Your task to perform on an android device: toggle javascript in the chrome app Image 0: 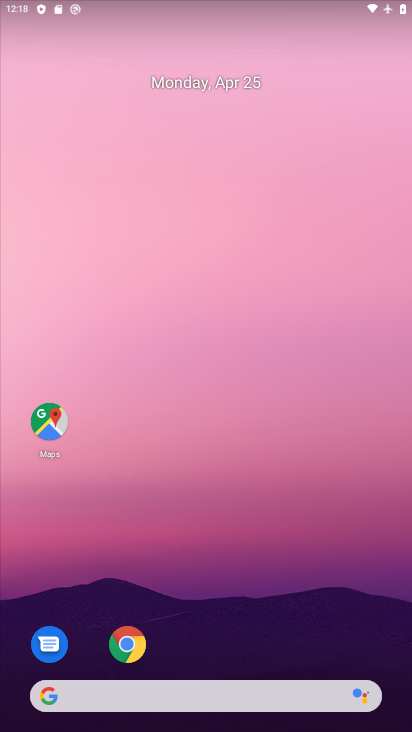
Step 0: click (123, 628)
Your task to perform on an android device: toggle javascript in the chrome app Image 1: 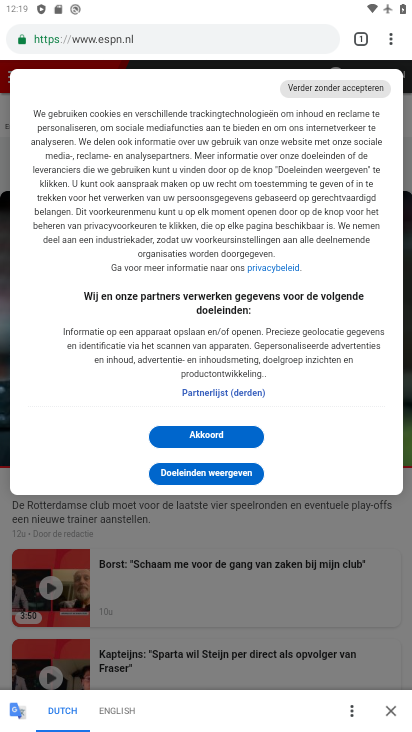
Step 1: click (392, 32)
Your task to perform on an android device: toggle javascript in the chrome app Image 2: 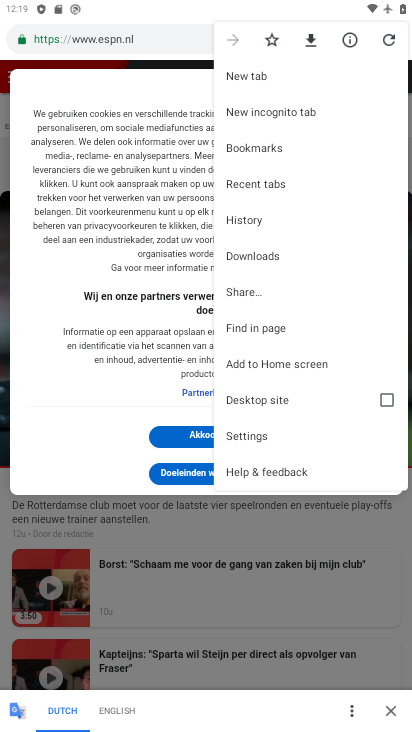
Step 2: click (266, 427)
Your task to perform on an android device: toggle javascript in the chrome app Image 3: 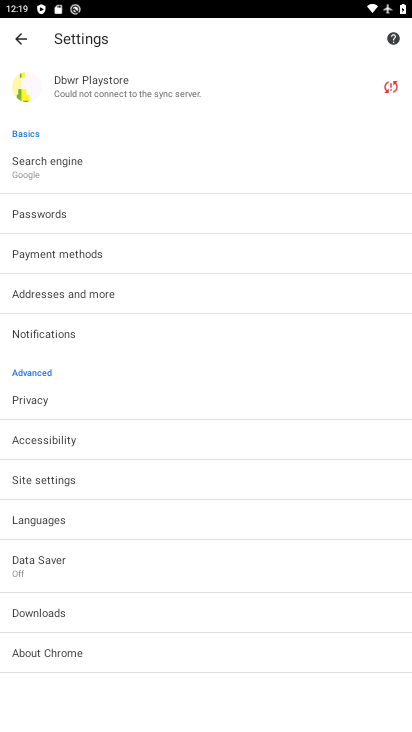
Step 3: click (174, 481)
Your task to perform on an android device: toggle javascript in the chrome app Image 4: 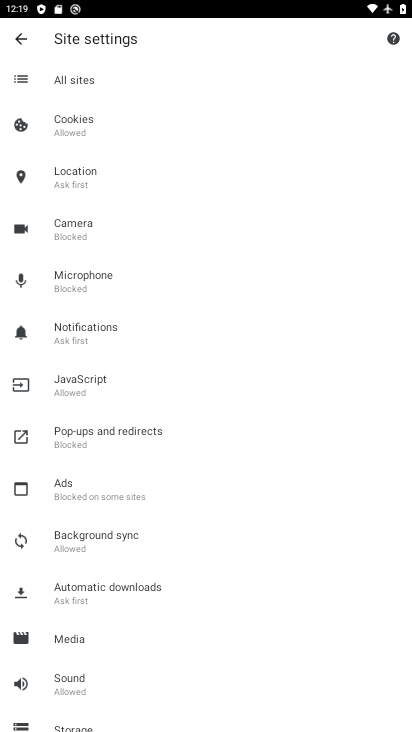
Step 4: click (183, 389)
Your task to perform on an android device: toggle javascript in the chrome app Image 5: 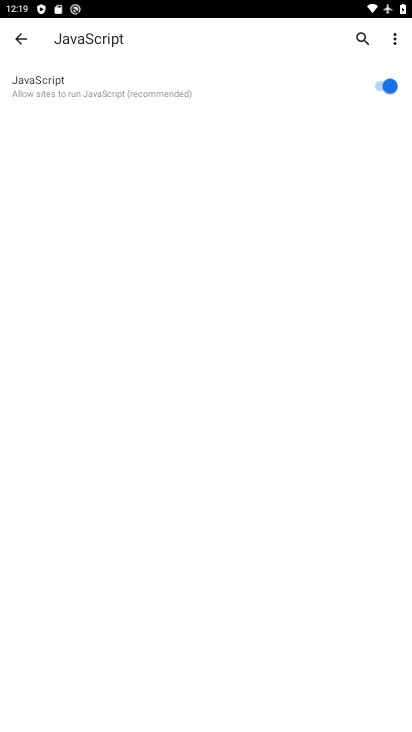
Step 5: click (385, 88)
Your task to perform on an android device: toggle javascript in the chrome app Image 6: 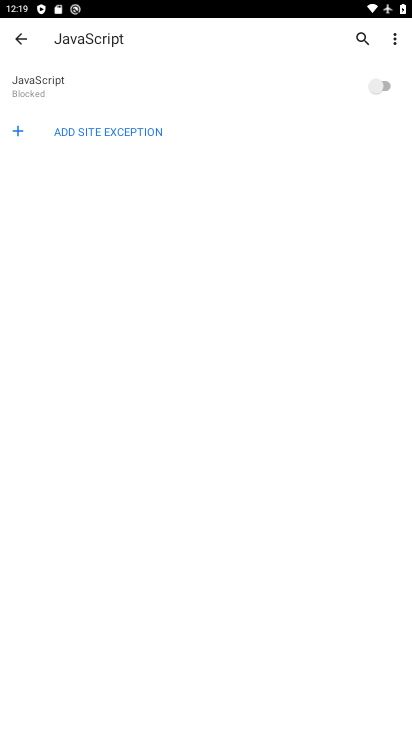
Step 6: task complete